Your task to perform on an android device: Open my contact list Image 0: 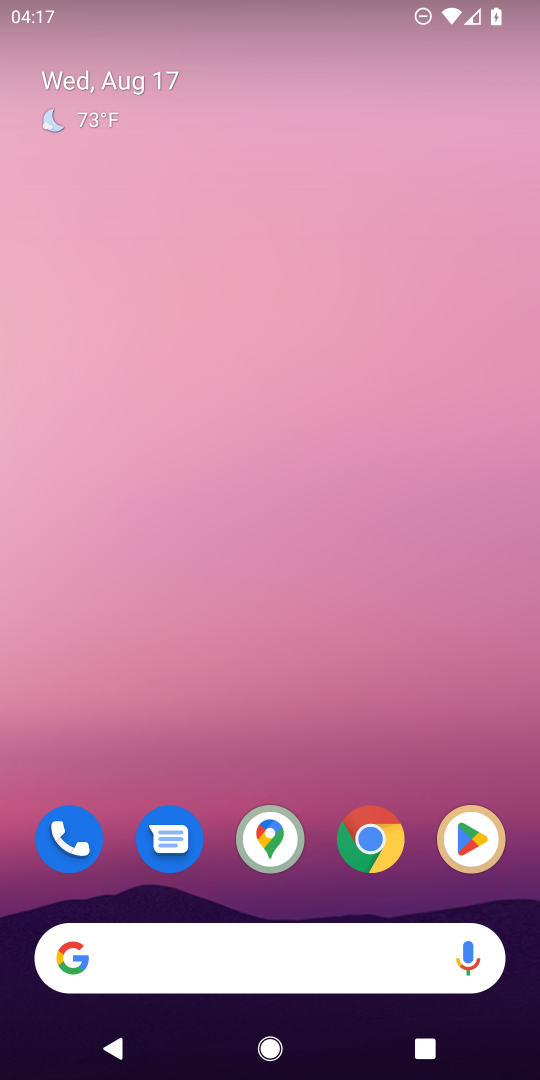
Step 0: drag from (295, 908) to (241, 150)
Your task to perform on an android device: Open my contact list Image 1: 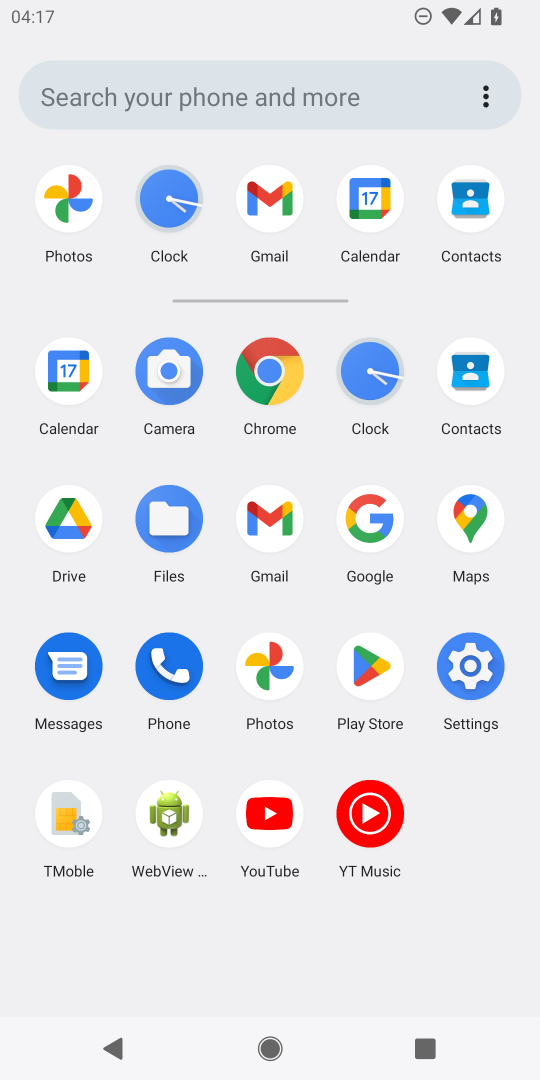
Step 1: click (472, 364)
Your task to perform on an android device: Open my contact list Image 2: 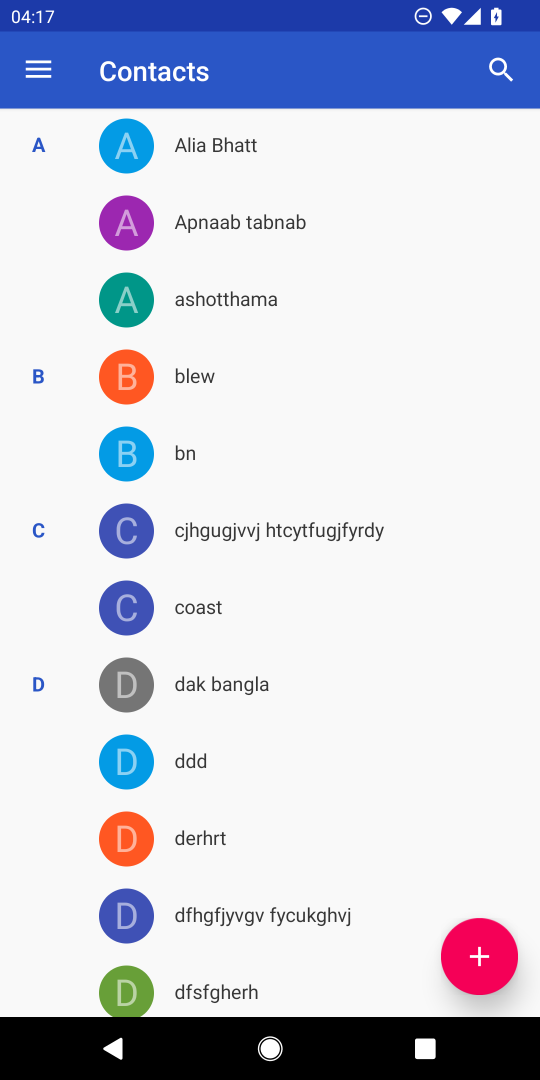
Step 2: task complete